Your task to perform on an android device: check battery use Image 0: 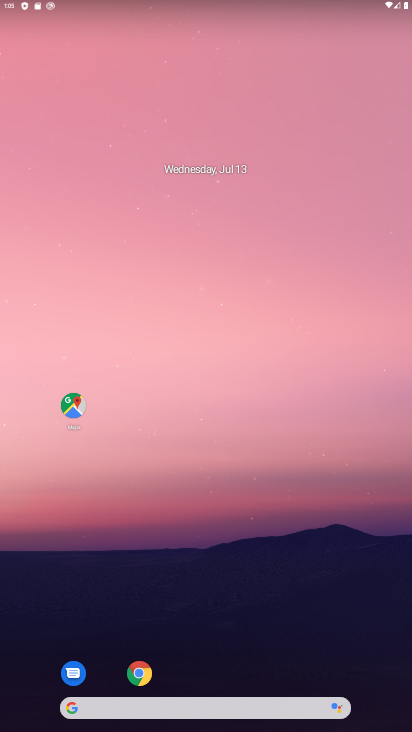
Step 0: drag from (200, 668) to (313, 20)
Your task to perform on an android device: check battery use Image 1: 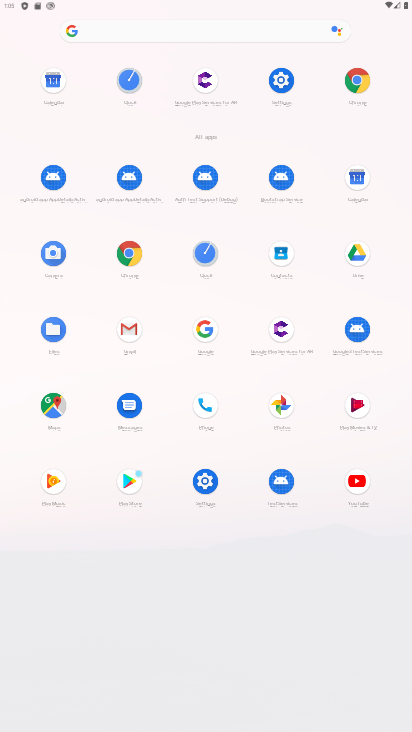
Step 1: click (284, 92)
Your task to perform on an android device: check battery use Image 2: 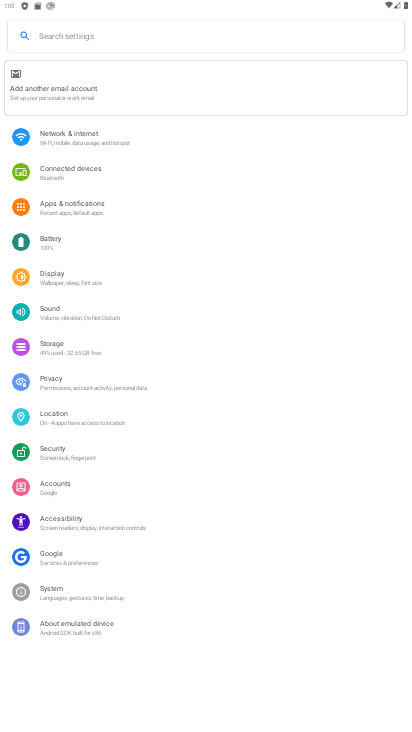
Step 2: click (40, 247)
Your task to perform on an android device: check battery use Image 3: 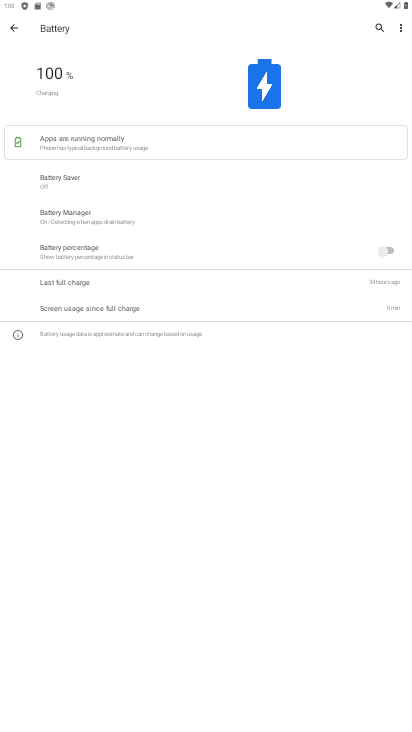
Step 3: task complete